Your task to perform on an android device: Clear the cart on newegg. Image 0: 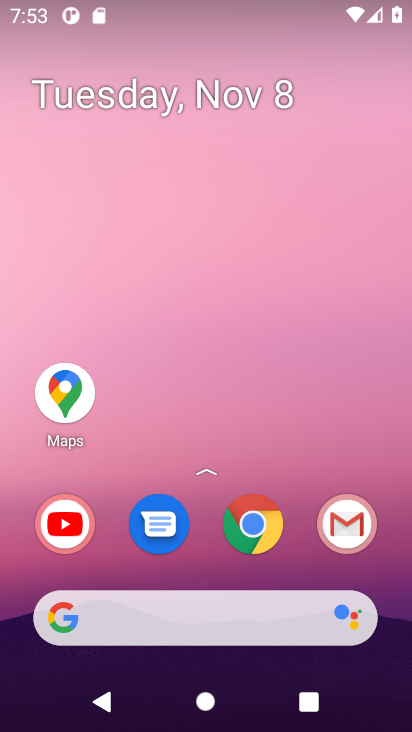
Step 0: click (253, 533)
Your task to perform on an android device: Clear the cart on newegg. Image 1: 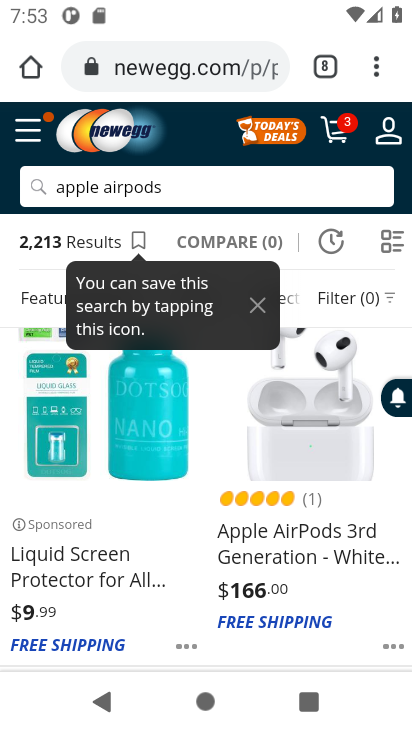
Step 1: click (348, 125)
Your task to perform on an android device: Clear the cart on newegg. Image 2: 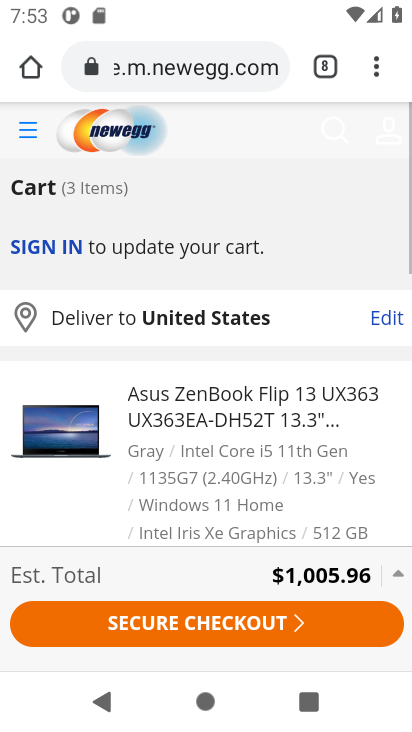
Step 2: drag from (160, 485) to (192, 280)
Your task to perform on an android device: Clear the cart on newegg. Image 3: 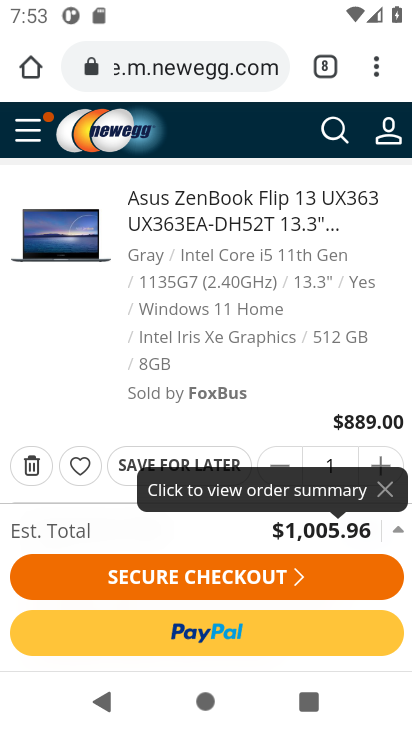
Step 3: click (25, 468)
Your task to perform on an android device: Clear the cart on newegg. Image 4: 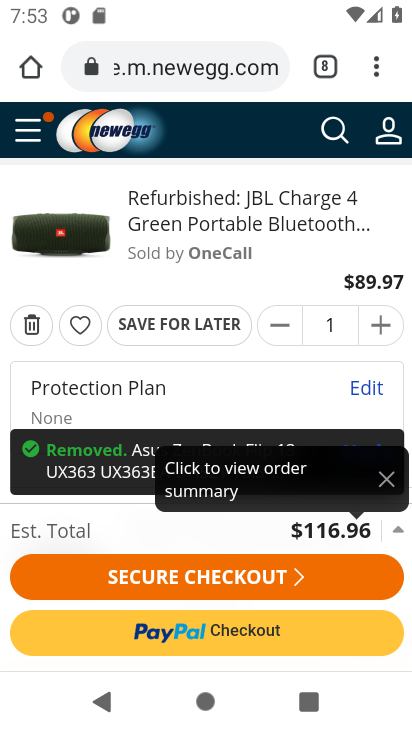
Step 4: click (28, 322)
Your task to perform on an android device: Clear the cart on newegg. Image 5: 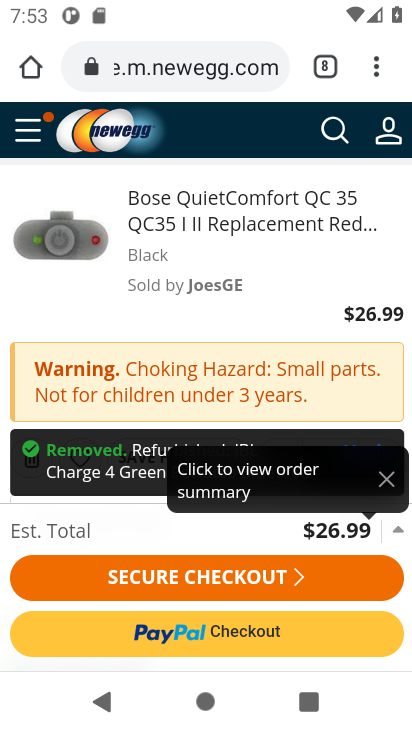
Step 5: drag from (221, 291) to (230, 255)
Your task to perform on an android device: Clear the cart on newegg. Image 6: 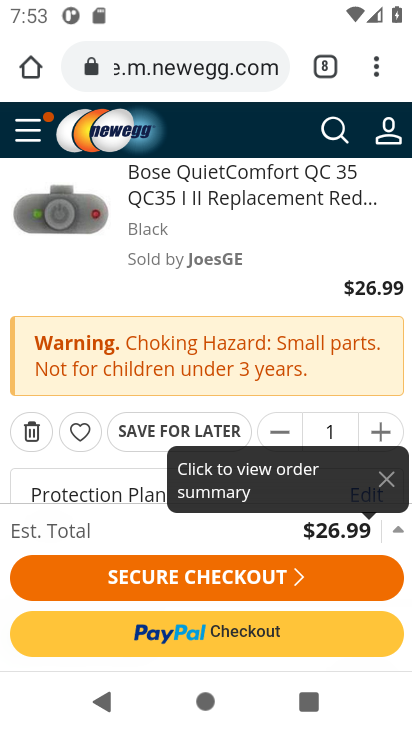
Step 6: click (33, 432)
Your task to perform on an android device: Clear the cart on newegg. Image 7: 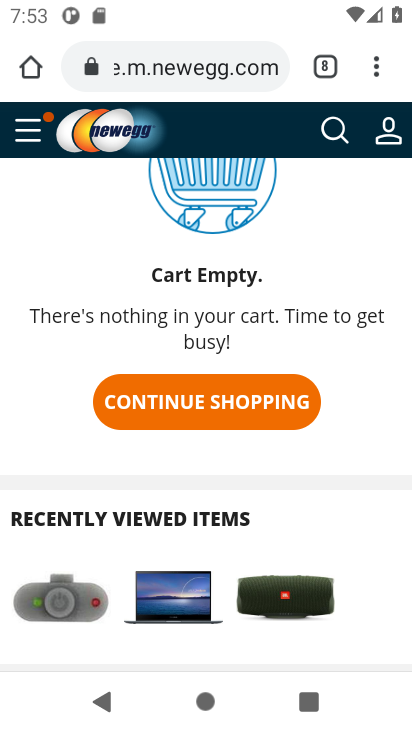
Step 7: task complete